Your task to perform on an android device: find photos in the google photos app Image 0: 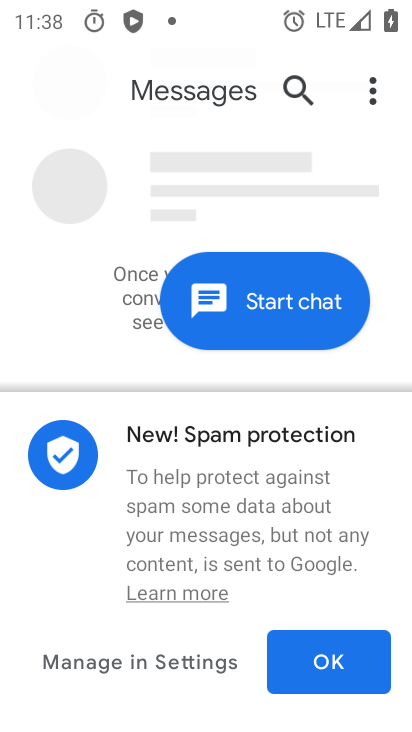
Step 0: press home button
Your task to perform on an android device: find photos in the google photos app Image 1: 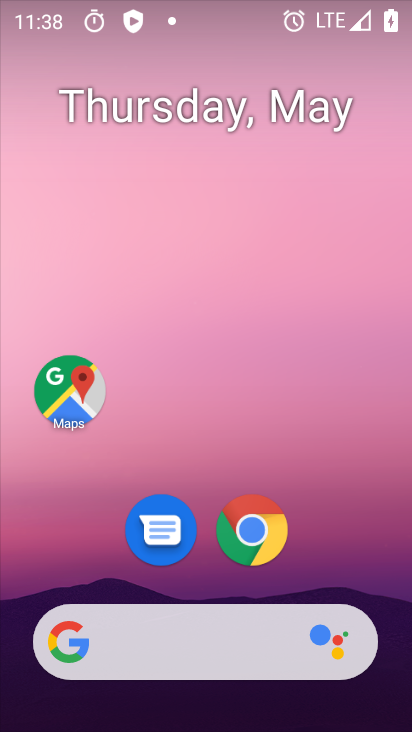
Step 1: drag from (302, 556) to (281, 224)
Your task to perform on an android device: find photos in the google photos app Image 2: 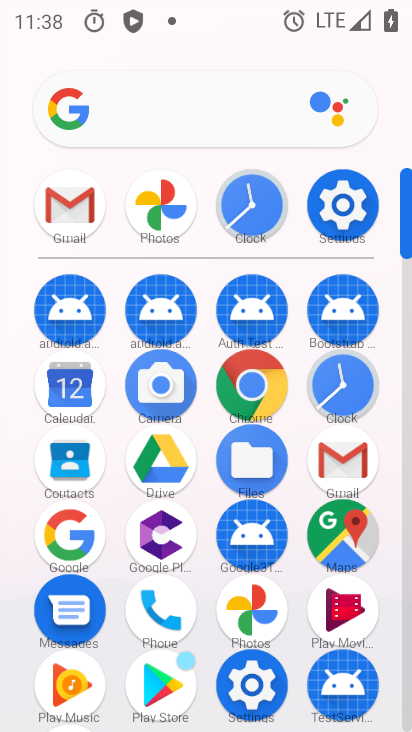
Step 2: click (238, 609)
Your task to perform on an android device: find photos in the google photos app Image 3: 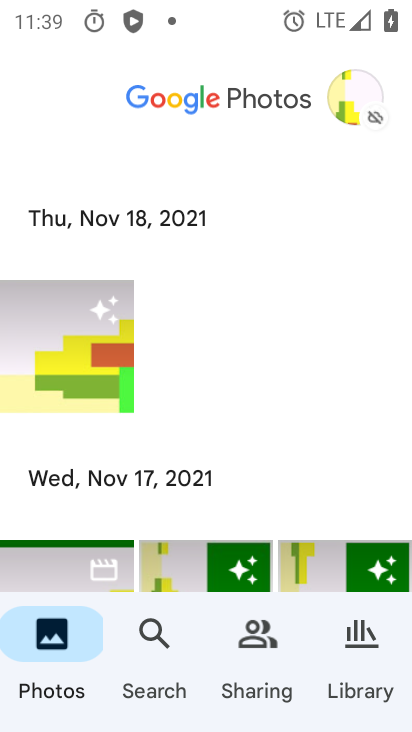
Step 3: task complete